Your task to perform on an android device: Go to Reddit.com Image 0: 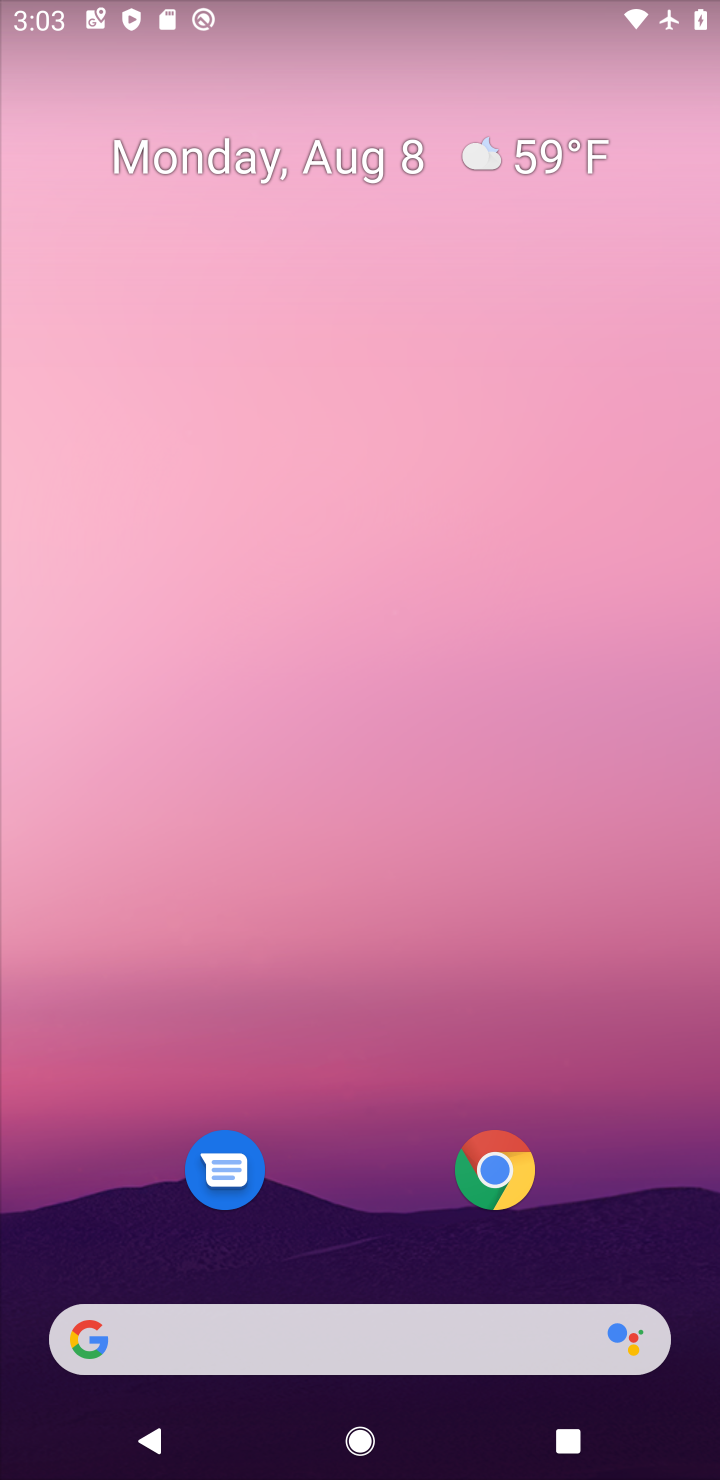
Step 0: click (495, 1141)
Your task to perform on an android device: Go to Reddit.com Image 1: 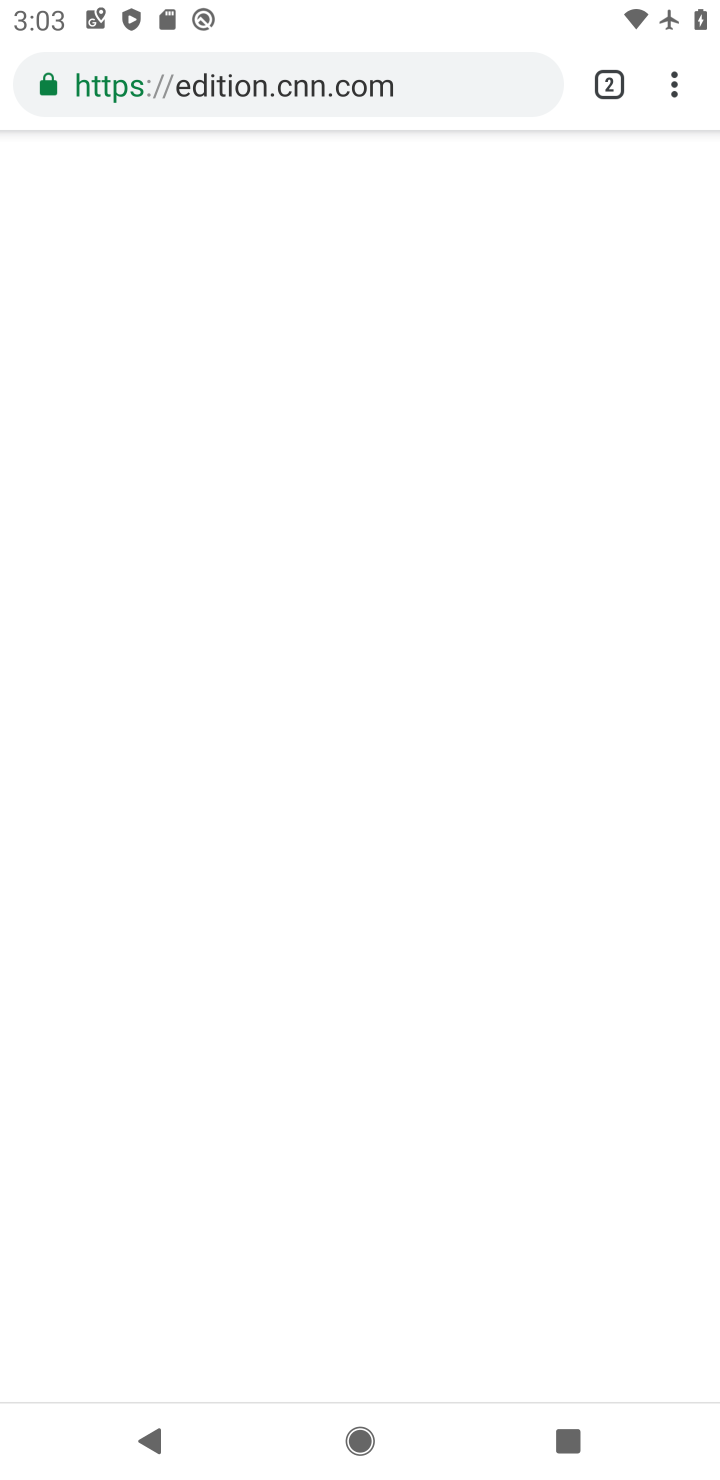
Step 1: click (609, 104)
Your task to perform on an android device: Go to Reddit.com Image 2: 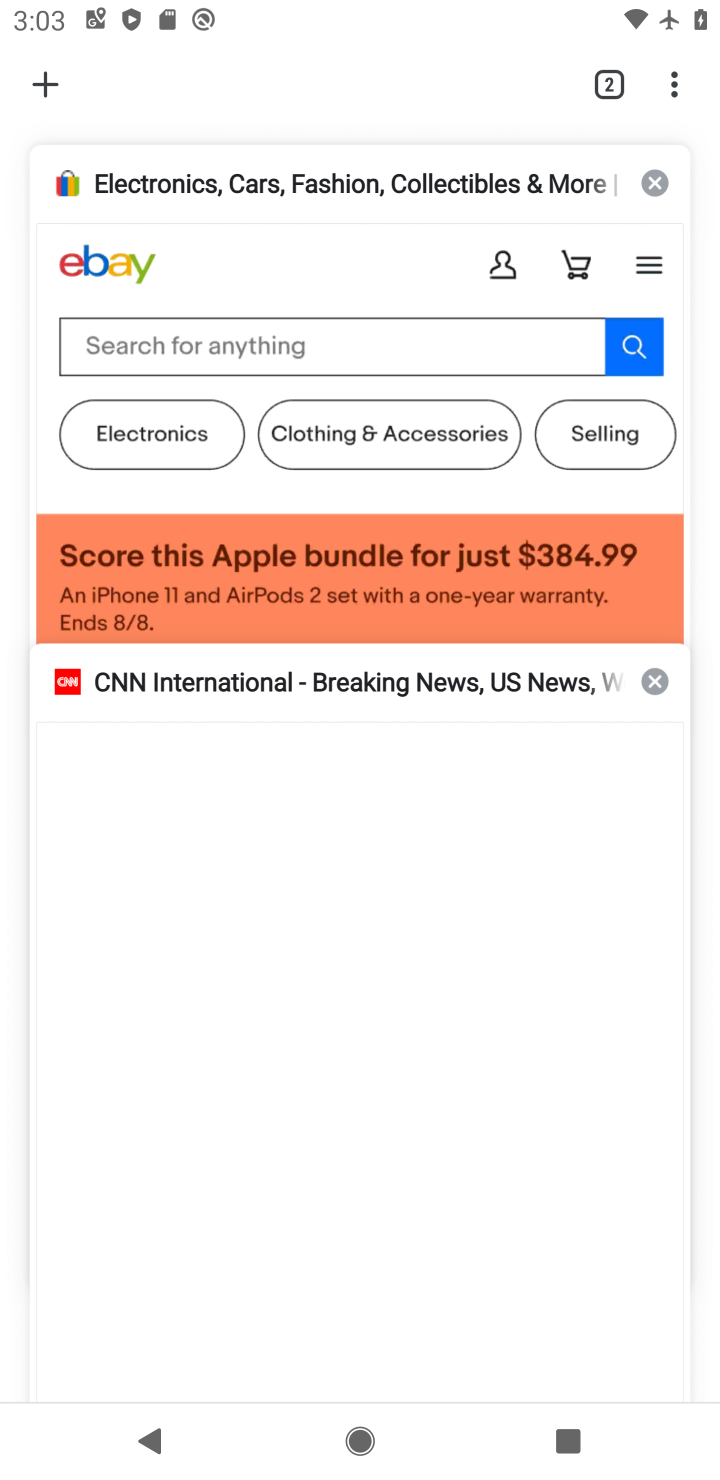
Step 2: click (46, 79)
Your task to perform on an android device: Go to Reddit.com Image 3: 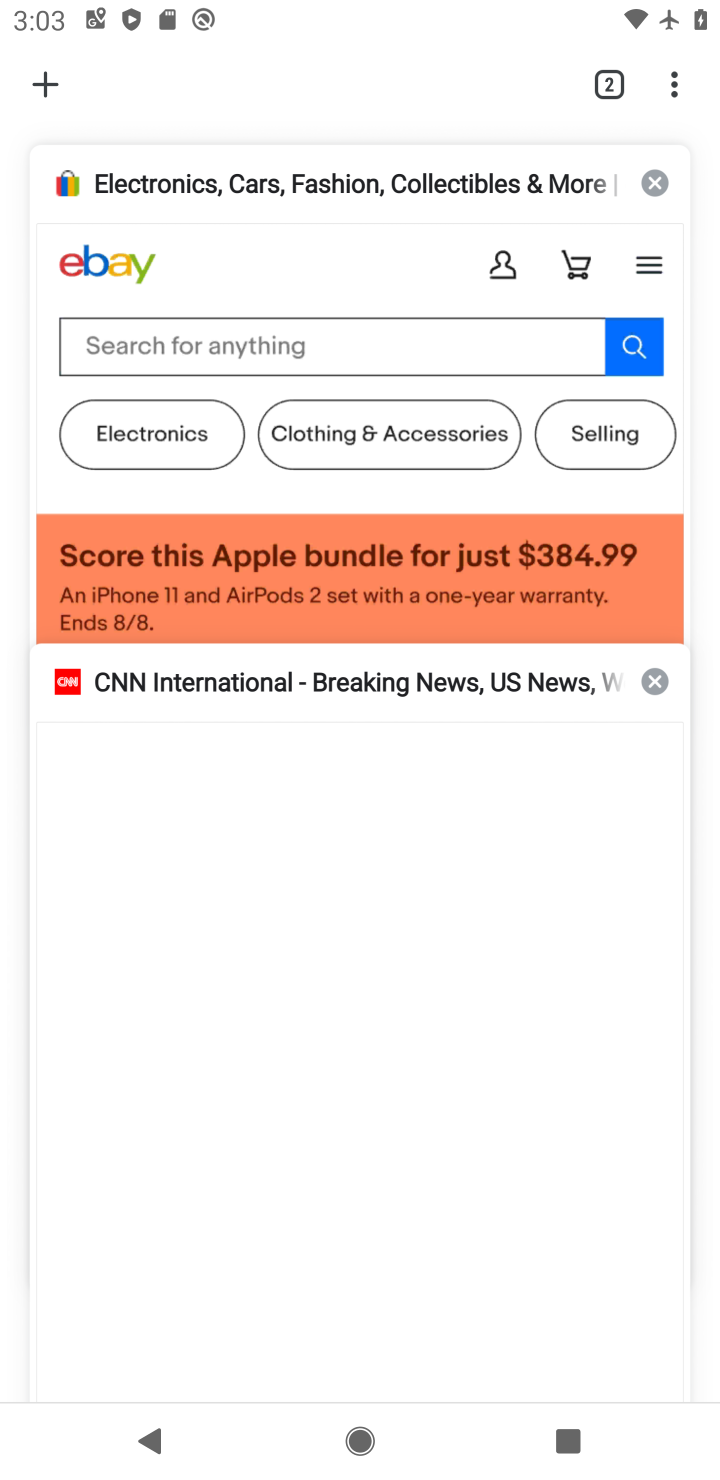
Step 3: click (46, 83)
Your task to perform on an android device: Go to Reddit.com Image 4: 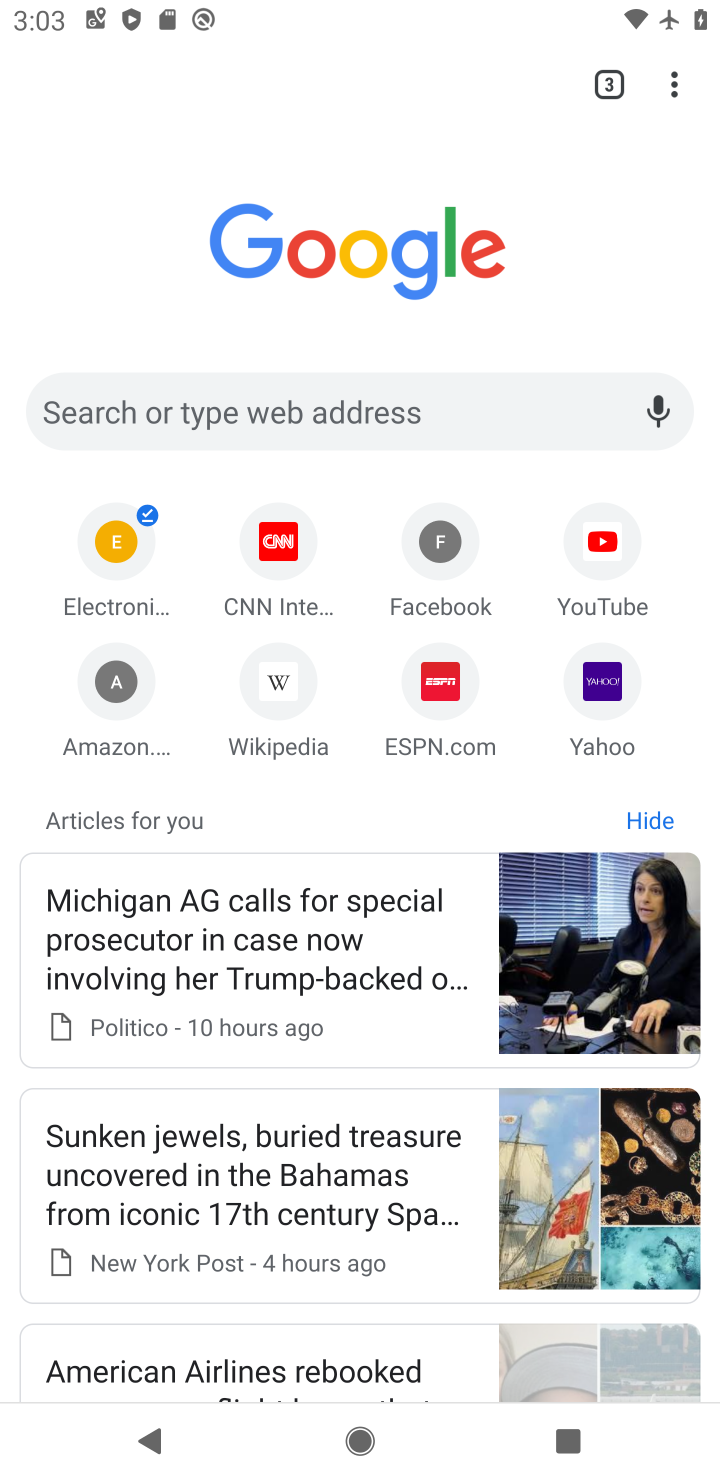
Step 4: click (311, 413)
Your task to perform on an android device: Go to Reddit.com Image 5: 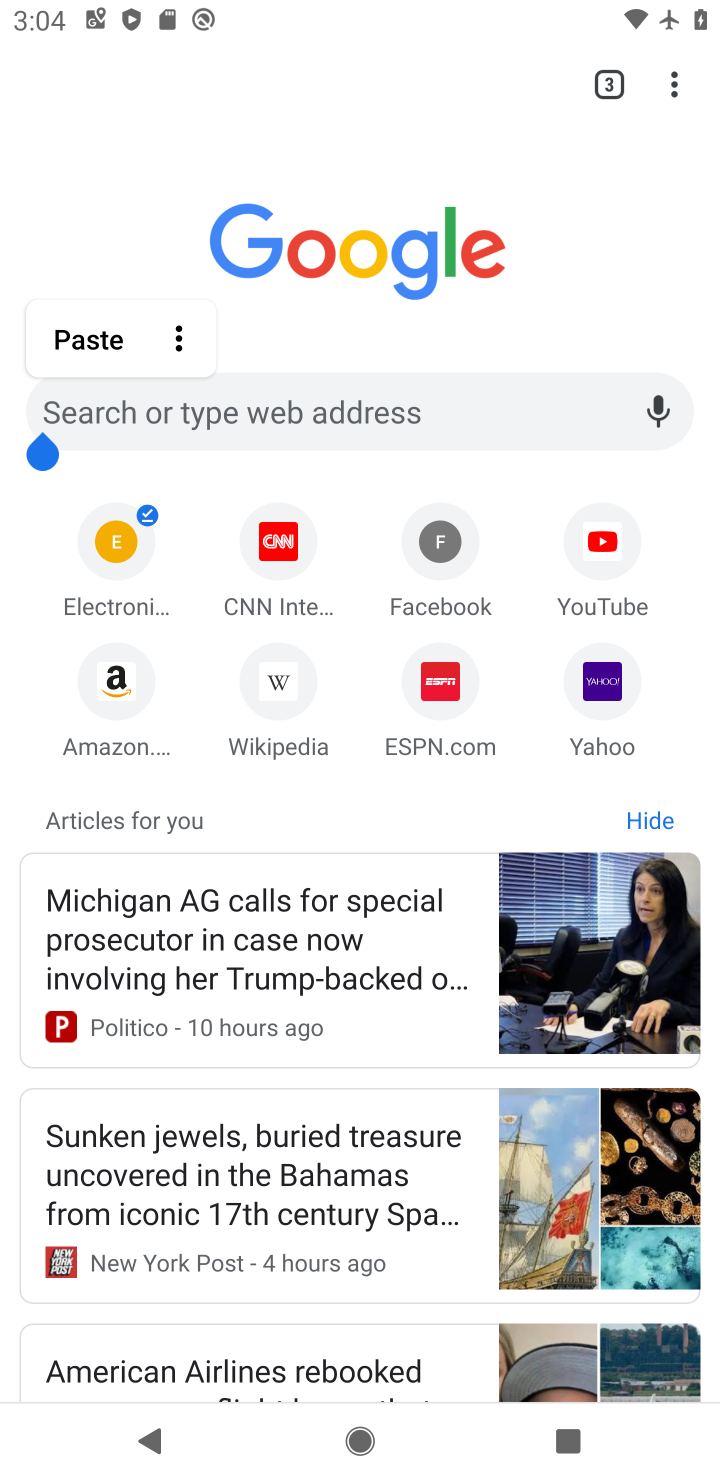
Step 5: type "Reddit.com"
Your task to perform on an android device: Go to Reddit.com Image 6: 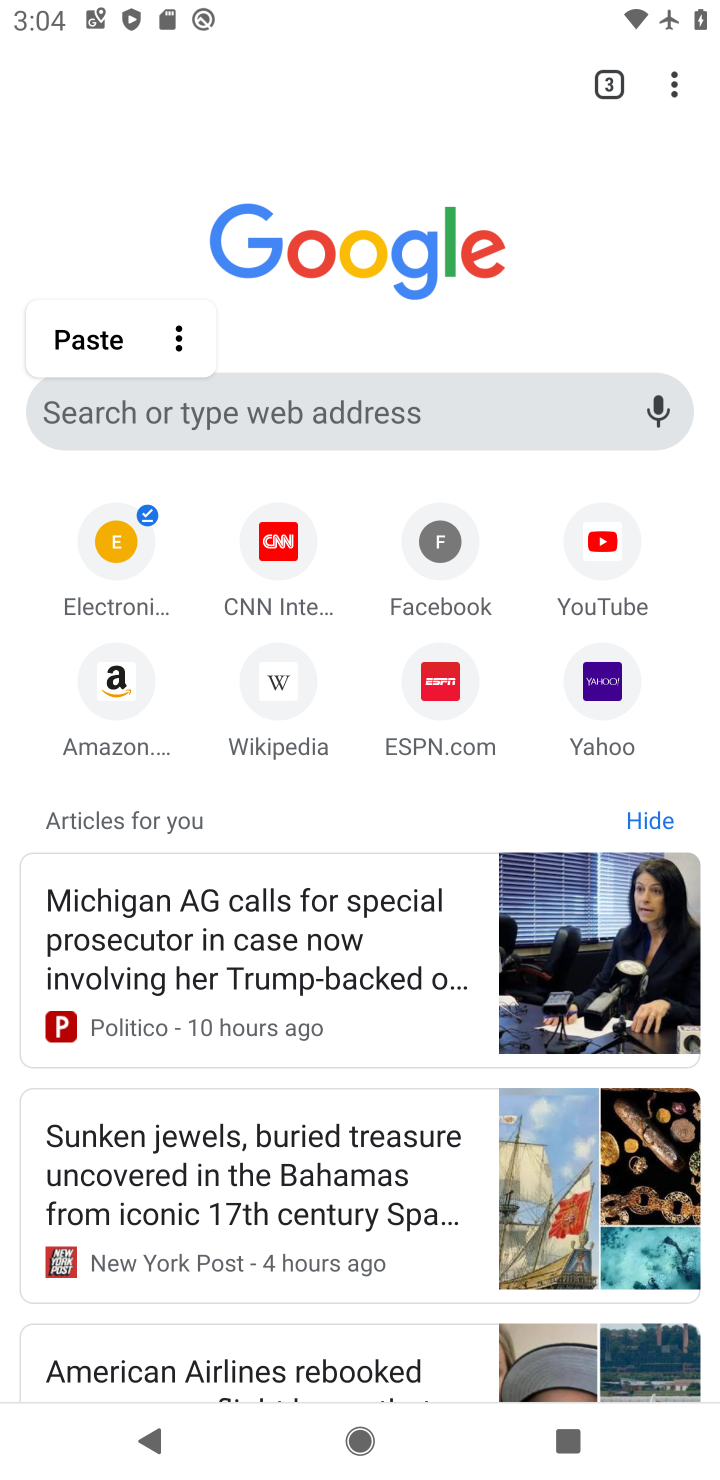
Step 6: type ""
Your task to perform on an android device: Go to Reddit.com Image 7: 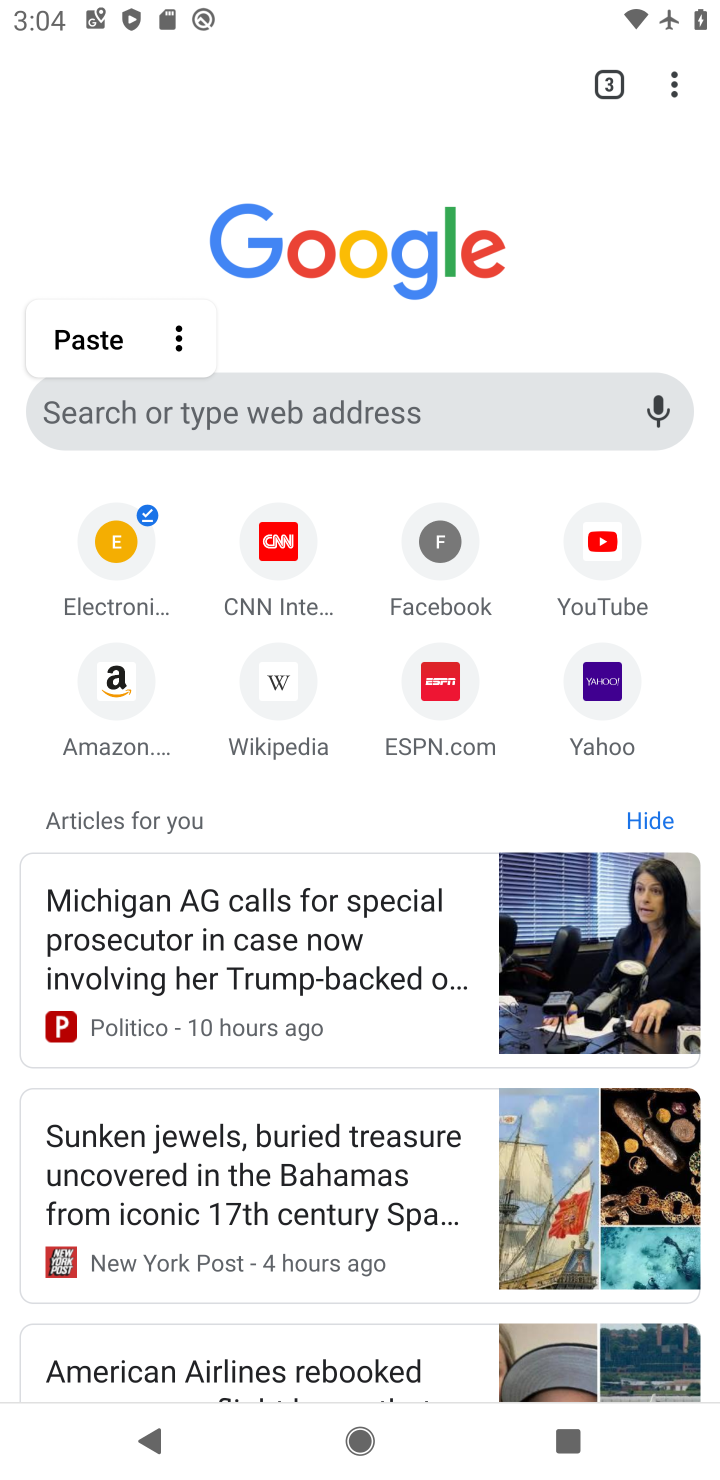
Step 7: click (221, 419)
Your task to perform on an android device: Go to Reddit.com Image 8: 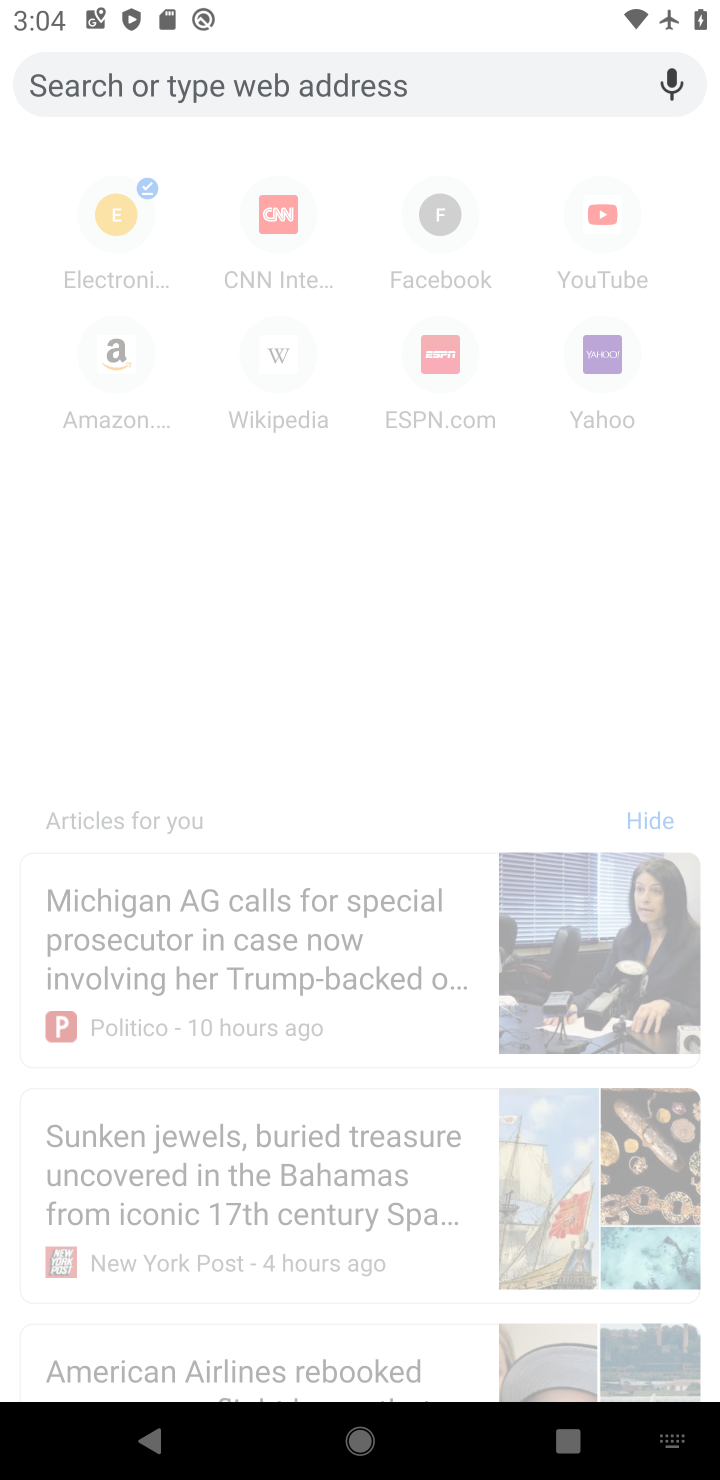
Step 8: type "Reddit.com"
Your task to perform on an android device: Go to Reddit.com Image 9: 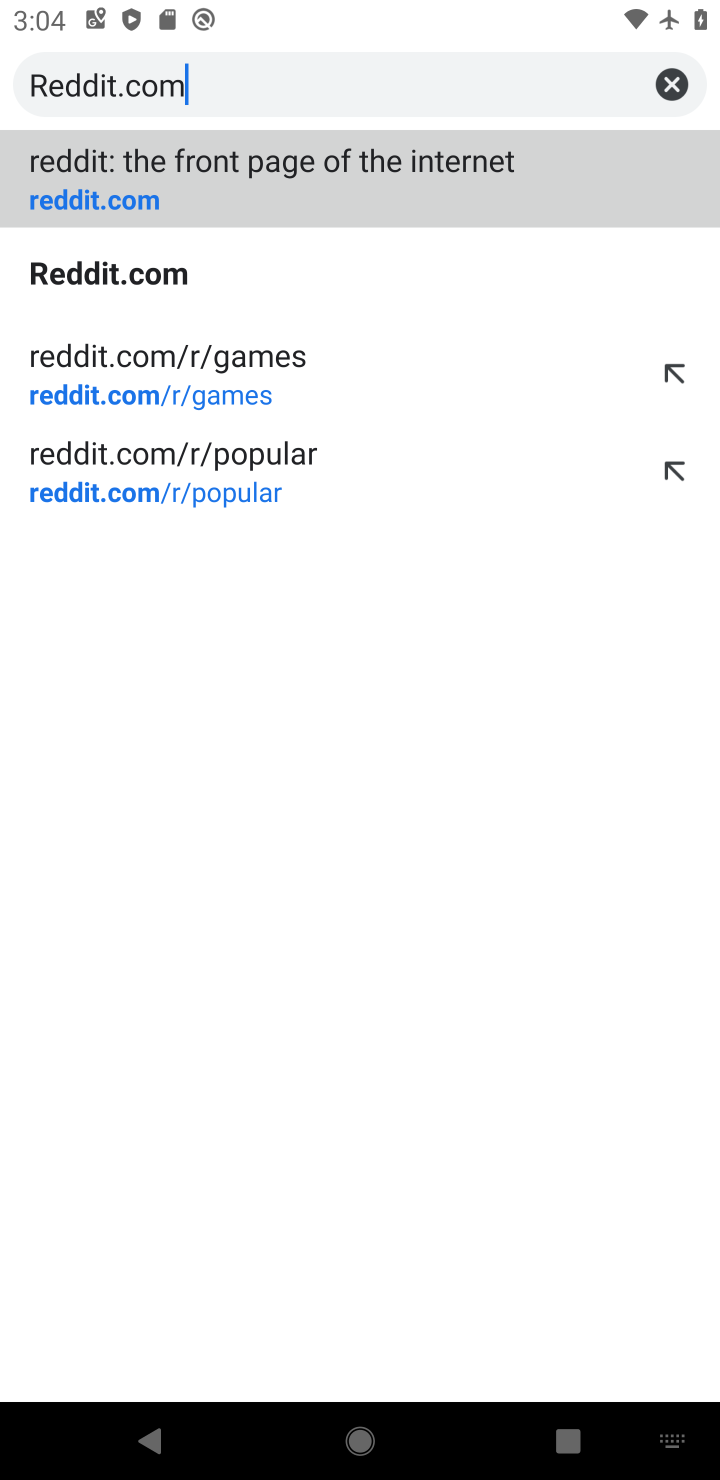
Step 9: type ""
Your task to perform on an android device: Go to Reddit.com Image 10: 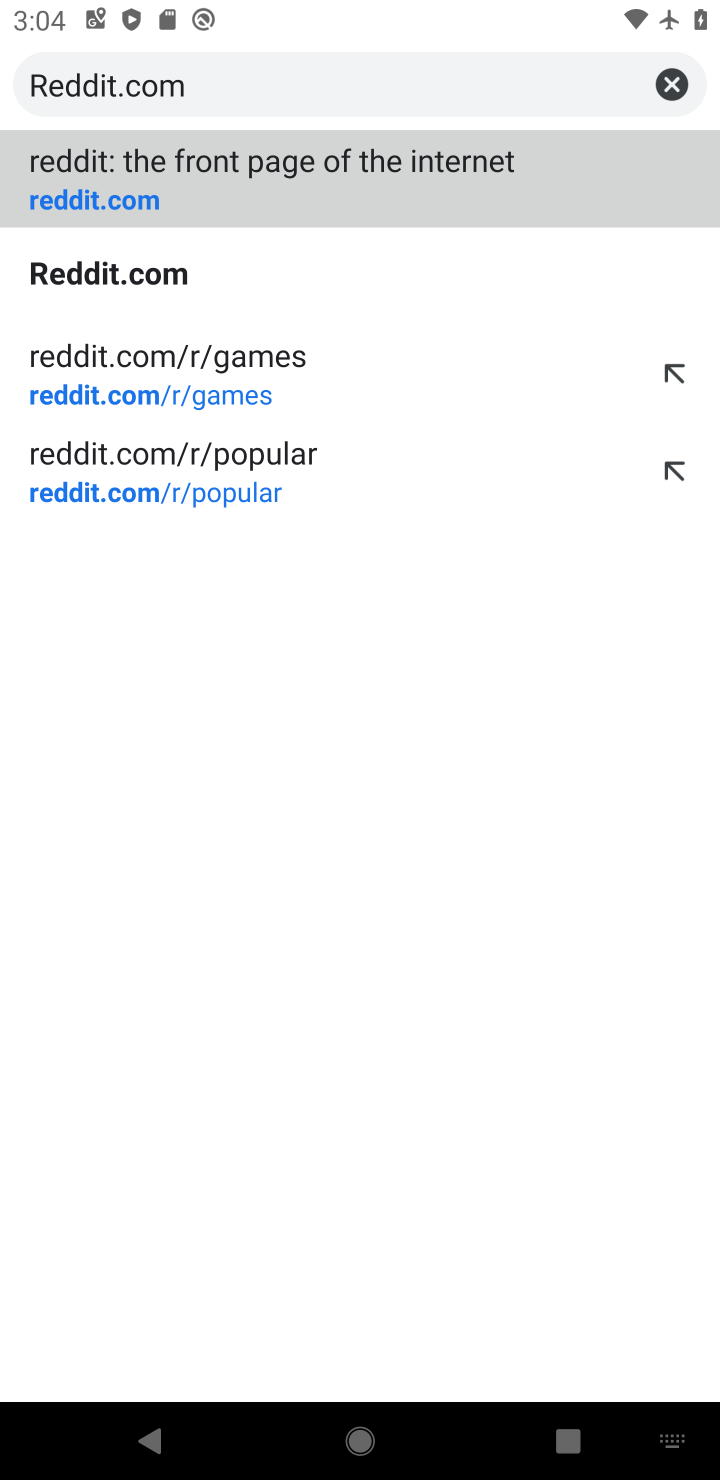
Step 10: click (232, 184)
Your task to perform on an android device: Go to Reddit.com Image 11: 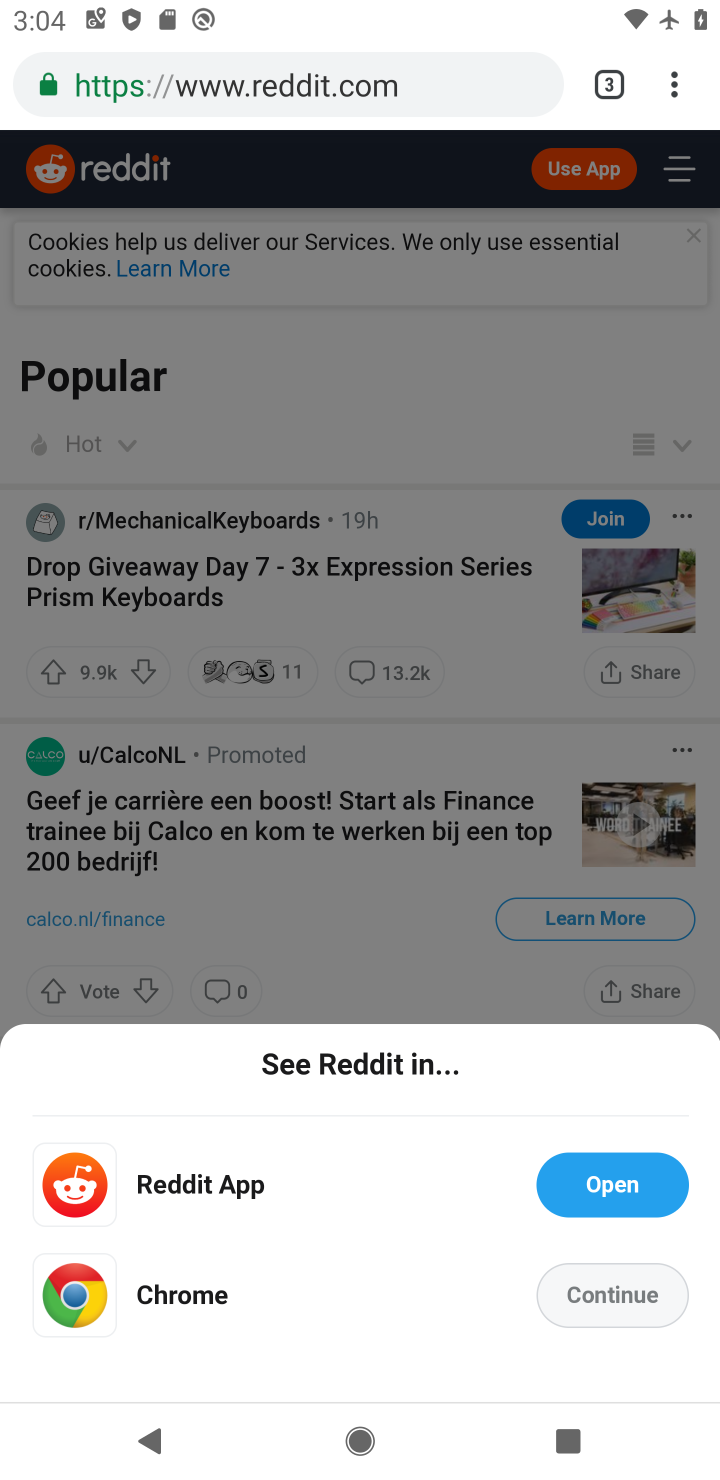
Step 11: task complete